Your task to perform on an android device: make emails show in primary in the gmail app Image 0: 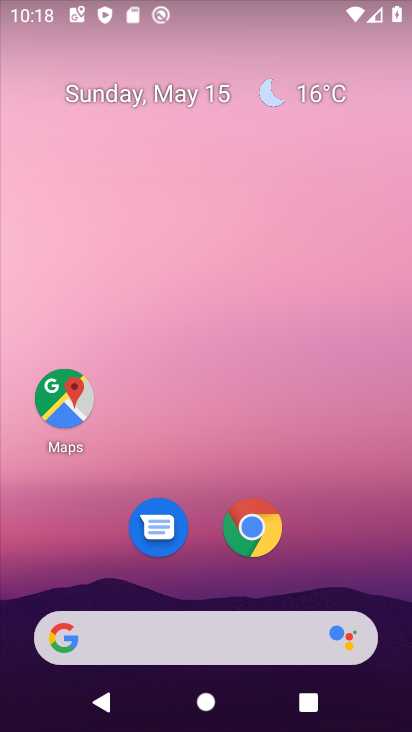
Step 0: drag from (361, 582) to (340, 11)
Your task to perform on an android device: make emails show in primary in the gmail app Image 1: 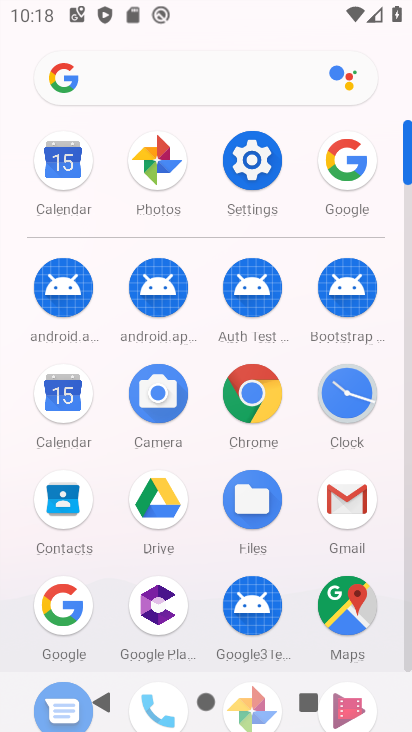
Step 1: click (354, 492)
Your task to perform on an android device: make emails show in primary in the gmail app Image 2: 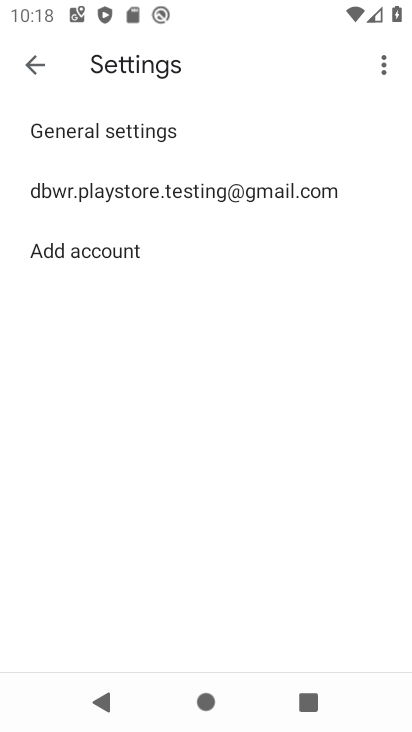
Step 2: click (70, 185)
Your task to perform on an android device: make emails show in primary in the gmail app Image 3: 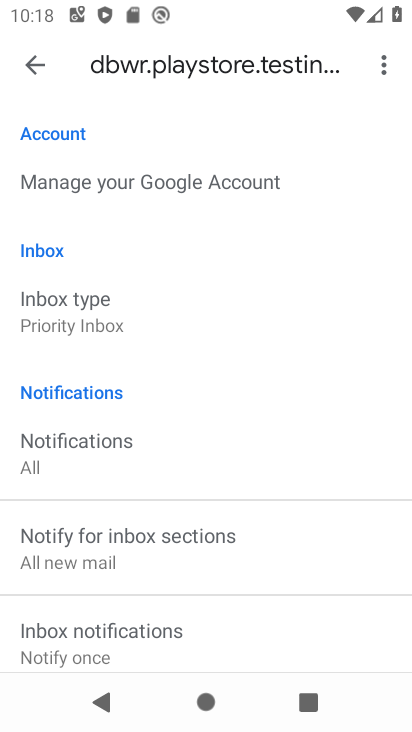
Step 3: task complete